Your task to perform on an android device: see tabs open on other devices in the chrome app Image 0: 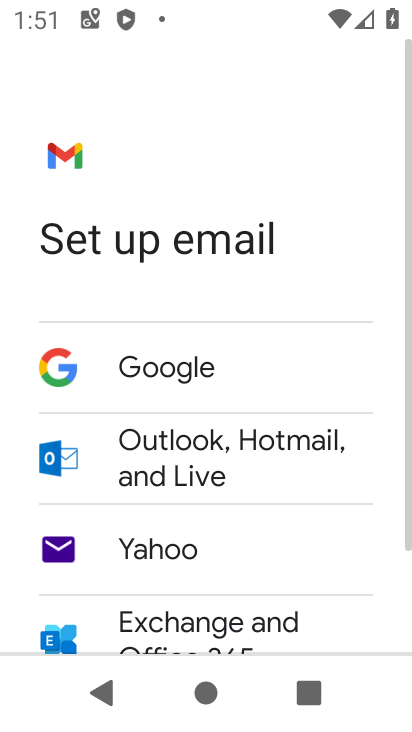
Step 0: press home button
Your task to perform on an android device: see tabs open on other devices in the chrome app Image 1: 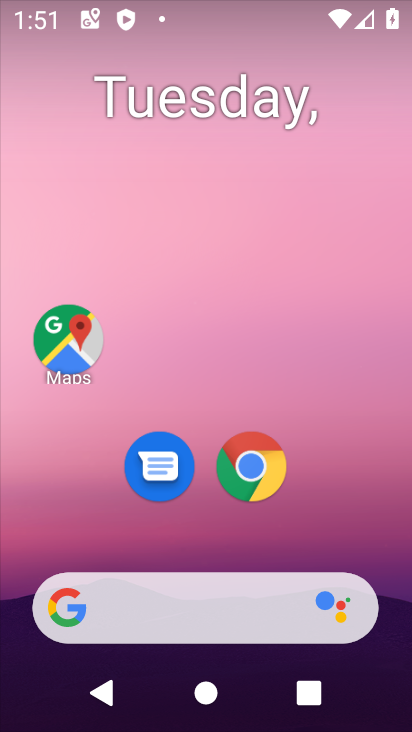
Step 1: drag from (347, 529) to (108, 6)
Your task to perform on an android device: see tabs open on other devices in the chrome app Image 2: 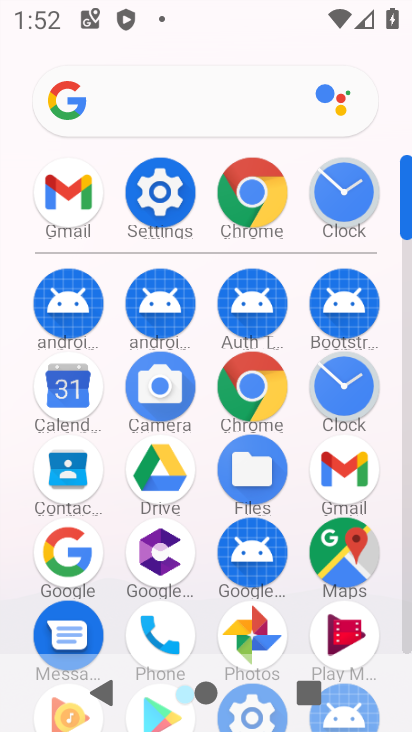
Step 2: click (267, 195)
Your task to perform on an android device: see tabs open on other devices in the chrome app Image 3: 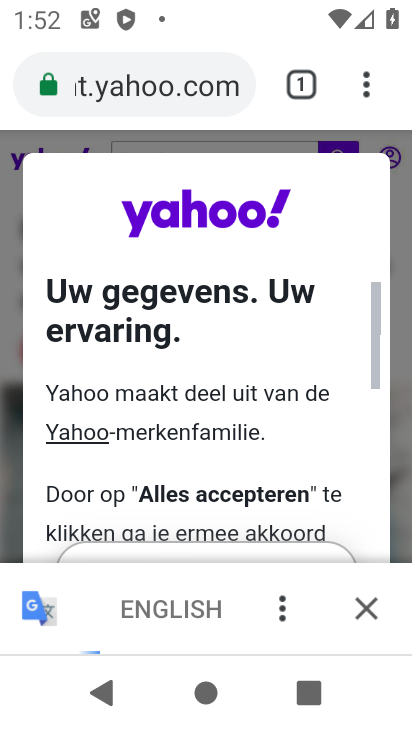
Step 3: click (364, 106)
Your task to perform on an android device: see tabs open on other devices in the chrome app Image 4: 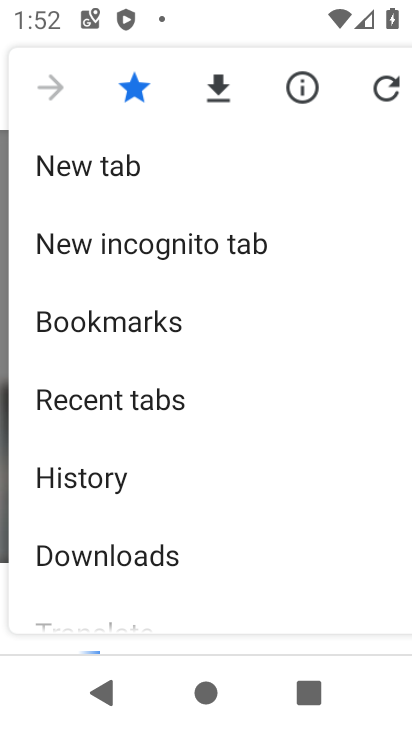
Step 4: click (167, 383)
Your task to perform on an android device: see tabs open on other devices in the chrome app Image 5: 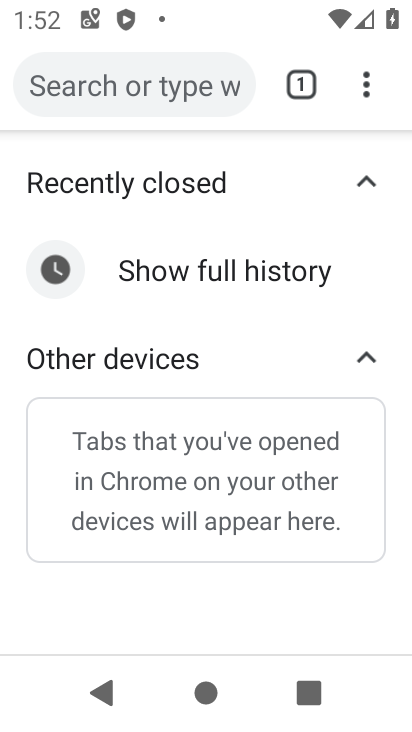
Step 5: task complete